Your task to perform on an android device: open chrome and create a bookmark for the current page Image 0: 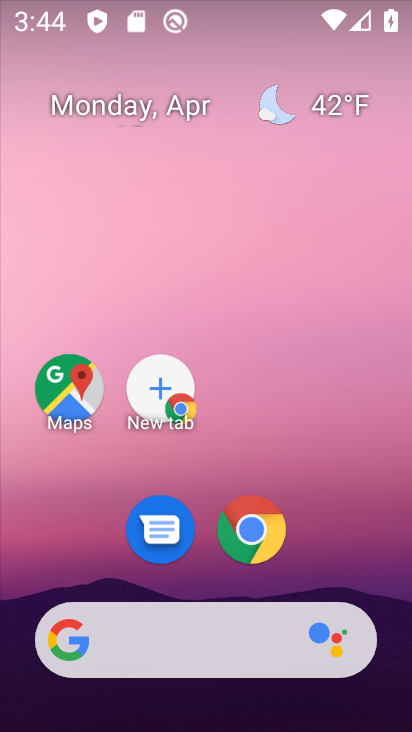
Step 0: click (246, 546)
Your task to perform on an android device: open chrome and create a bookmark for the current page Image 1: 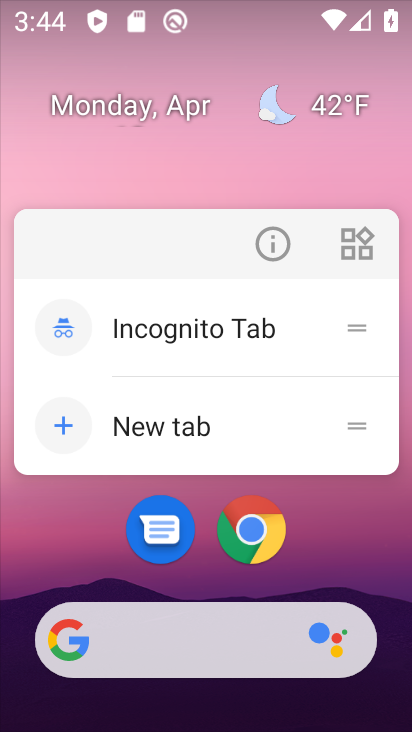
Step 1: click (253, 528)
Your task to perform on an android device: open chrome and create a bookmark for the current page Image 2: 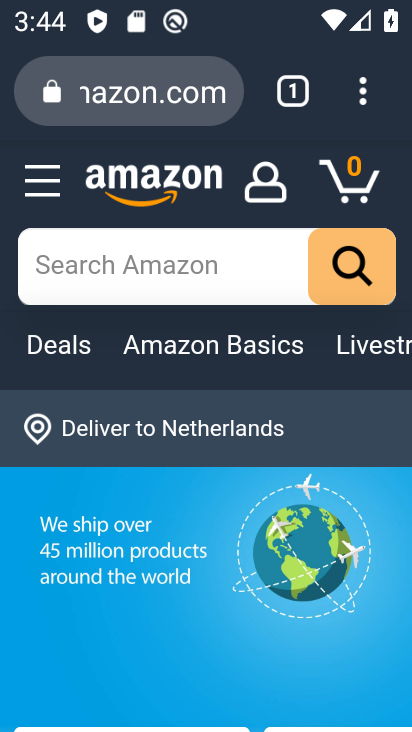
Step 2: drag from (362, 83) to (164, 350)
Your task to perform on an android device: open chrome and create a bookmark for the current page Image 3: 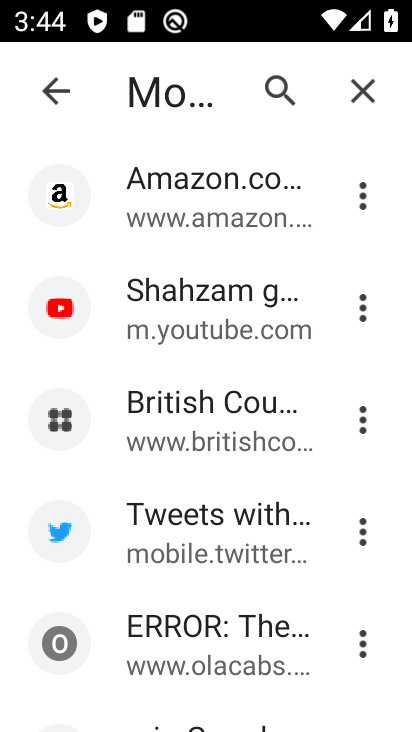
Step 3: click (361, 89)
Your task to perform on an android device: open chrome and create a bookmark for the current page Image 4: 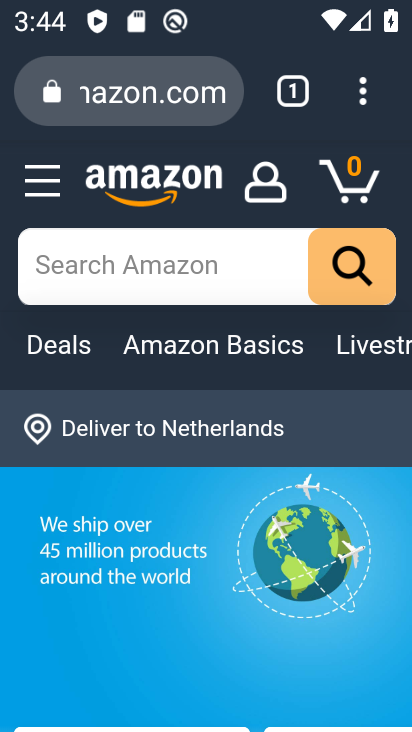
Step 4: click (302, 81)
Your task to perform on an android device: open chrome and create a bookmark for the current page Image 5: 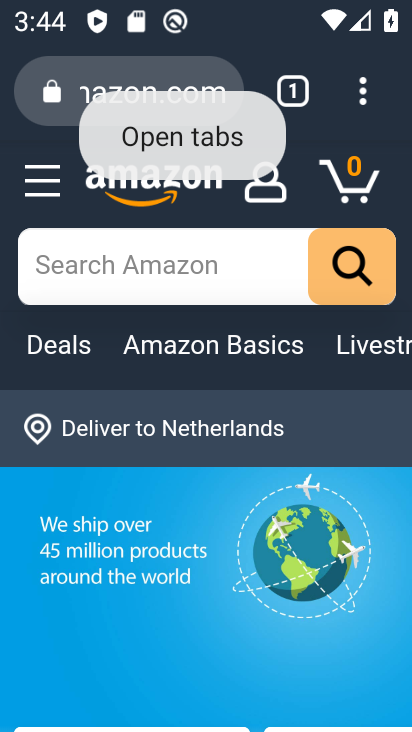
Step 5: click (177, 140)
Your task to perform on an android device: open chrome and create a bookmark for the current page Image 6: 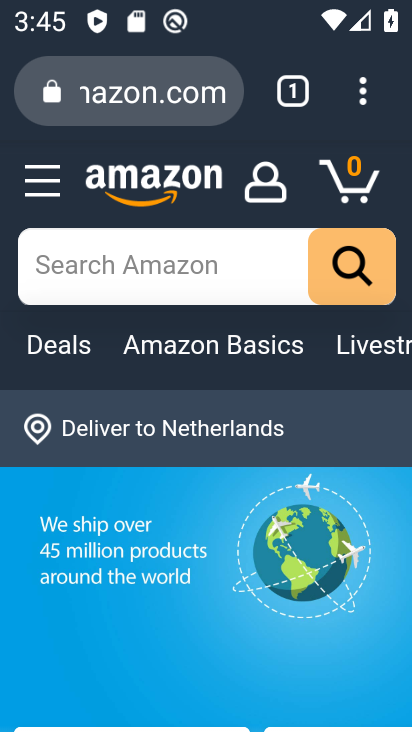
Step 6: click (294, 89)
Your task to perform on an android device: open chrome and create a bookmark for the current page Image 7: 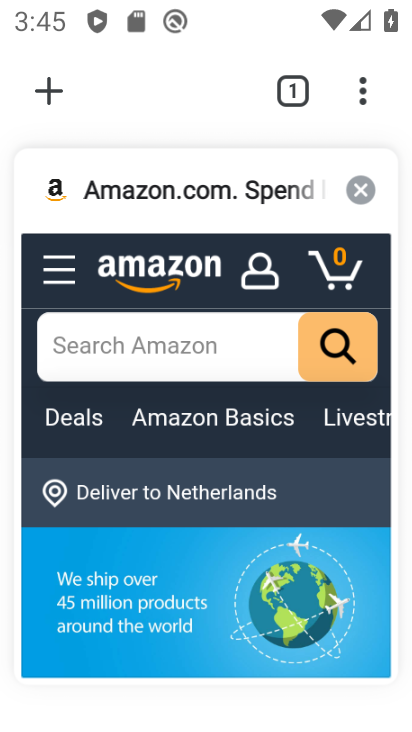
Step 7: click (58, 87)
Your task to perform on an android device: open chrome and create a bookmark for the current page Image 8: 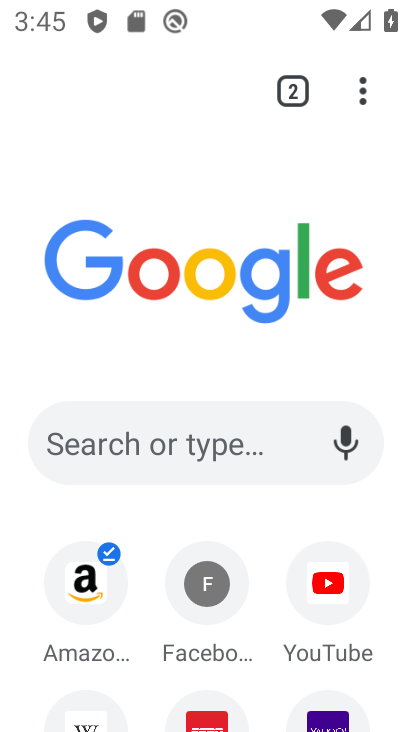
Step 8: click (168, 433)
Your task to perform on an android device: open chrome and create a bookmark for the current page Image 9: 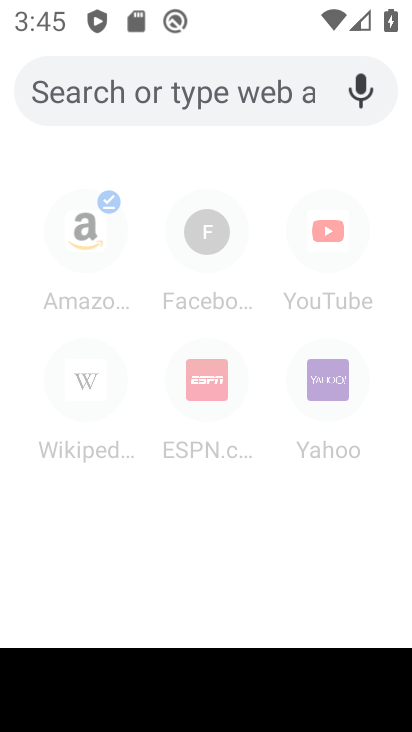
Step 9: type "tata"
Your task to perform on an android device: open chrome and create a bookmark for the current page Image 10: 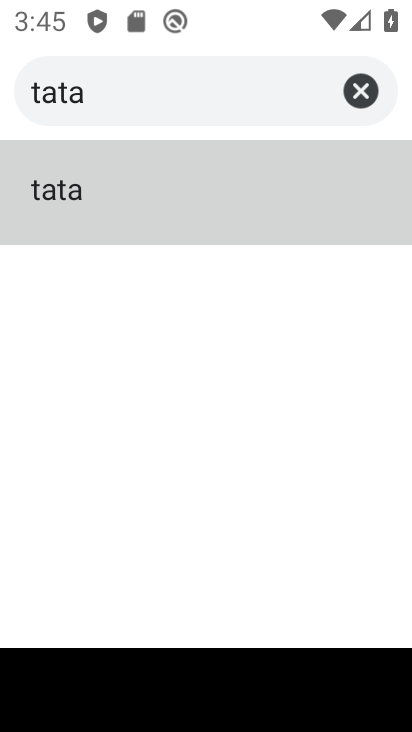
Step 10: click (118, 194)
Your task to perform on an android device: open chrome and create a bookmark for the current page Image 11: 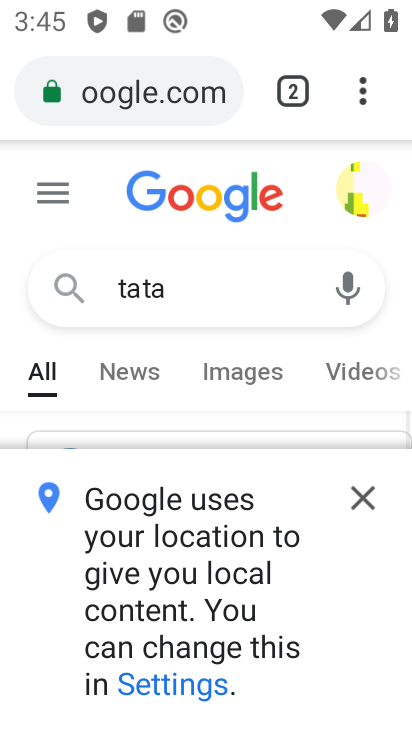
Step 11: click (365, 489)
Your task to perform on an android device: open chrome and create a bookmark for the current page Image 12: 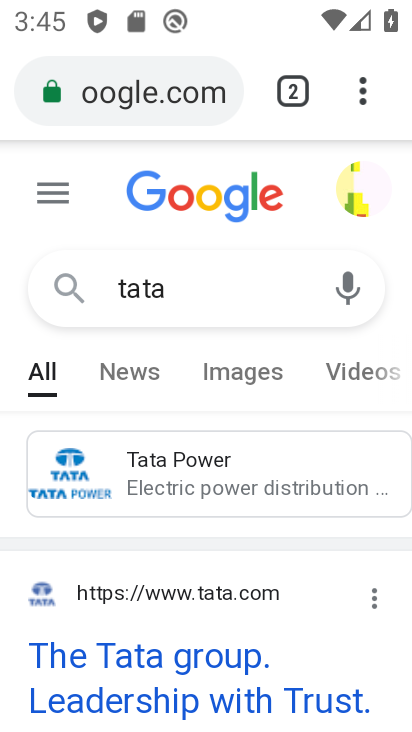
Step 12: click (178, 677)
Your task to perform on an android device: open chrome and create a bookmark for the current page Image 13: 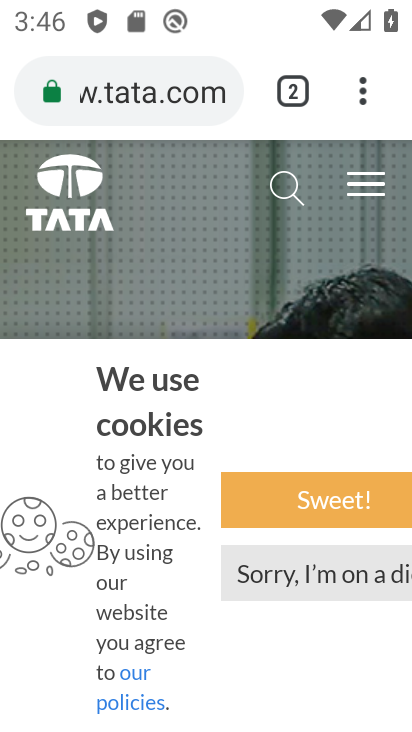
Step 13: task complete